Your task to perform on an android device: What's a good restaurant near me? Image 0: 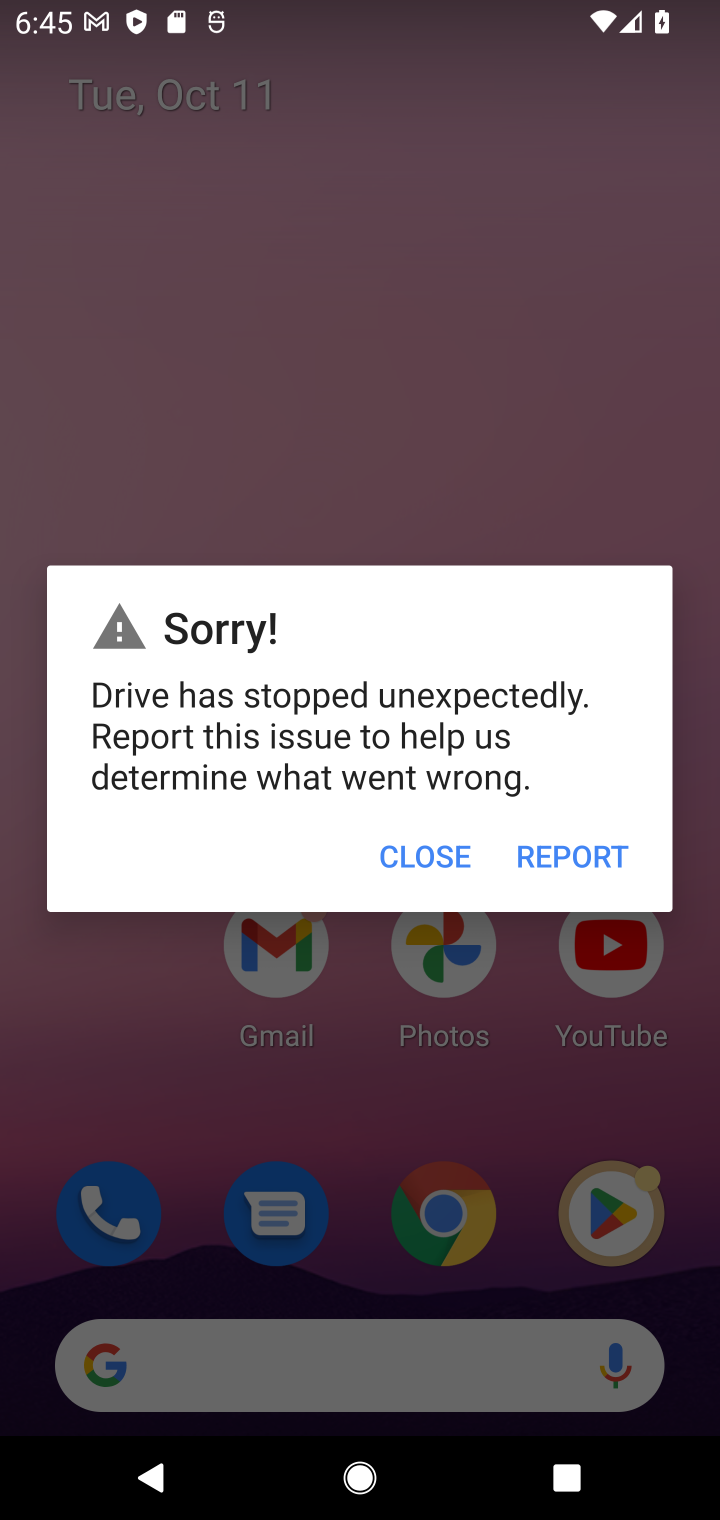
Step 0: click (450, 841)
Your task to perform on an android device: What's a good restaurant near me? Image 1: 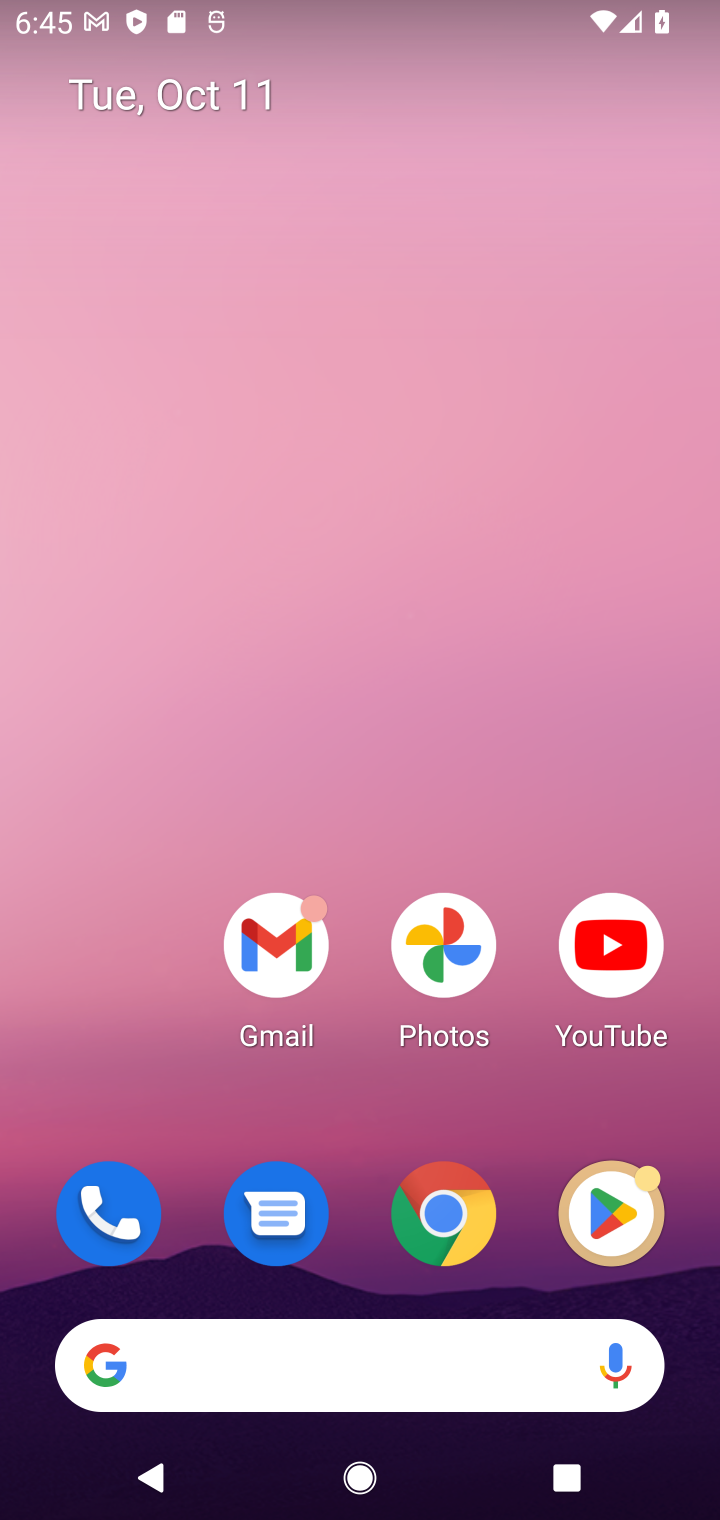
Step 1: drag from (234, 1198) to (336, 456)
Your task to perform on an android device: What's a good restaurant near me? Image 2: 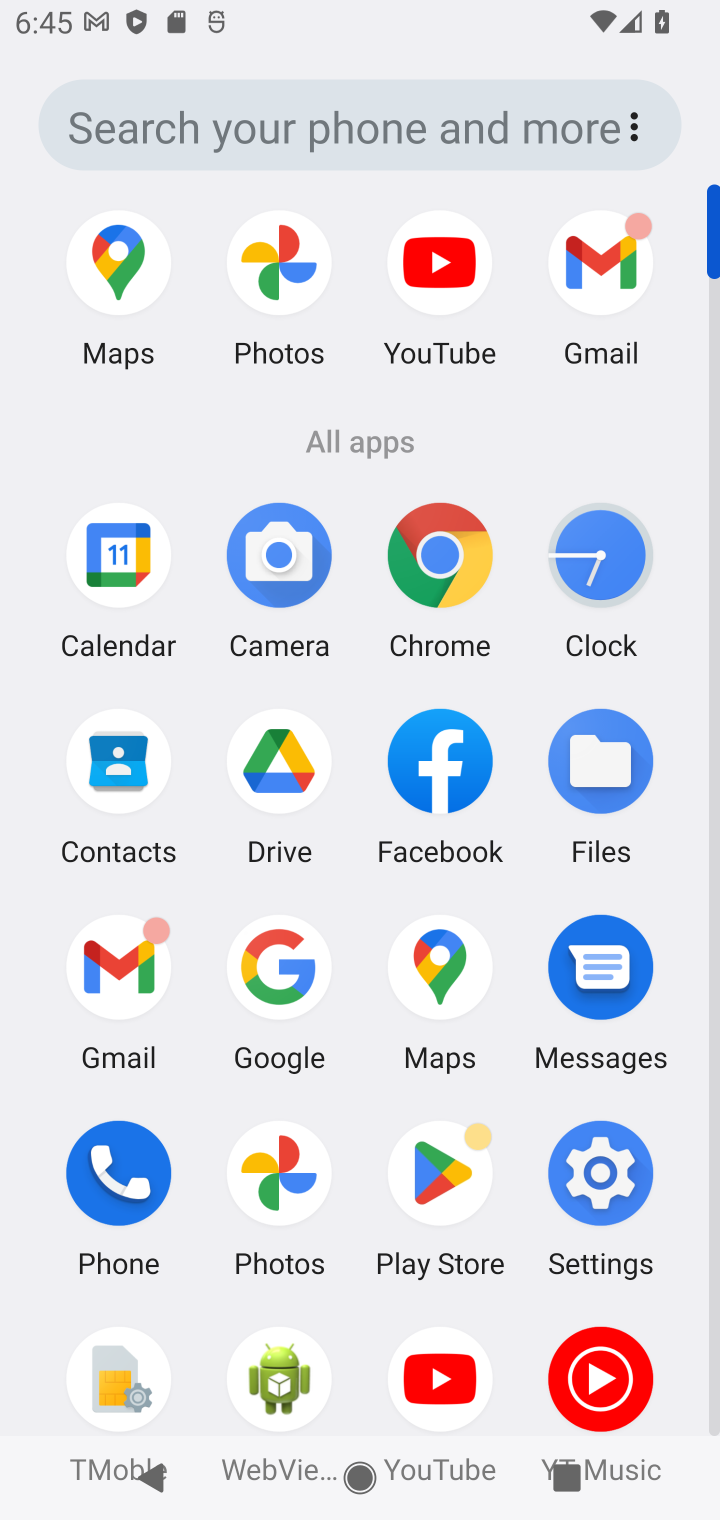
Step 2: click (279, 970)
Your task to perform on an android device: What's a good restaurant near me? Image 3: 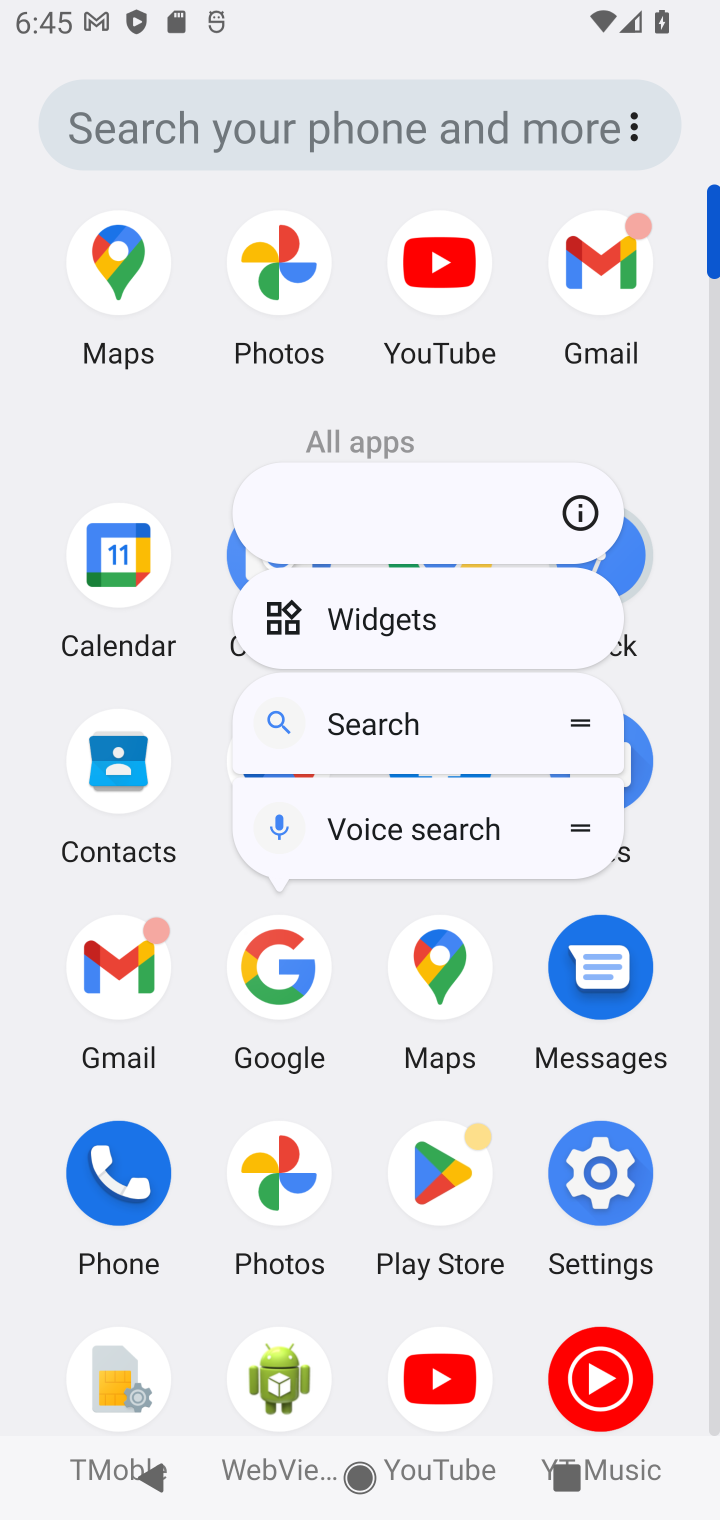
Step 3: click (270, 957)
Your task to perform on an android device: What's a good restaurant near me? Image 4: 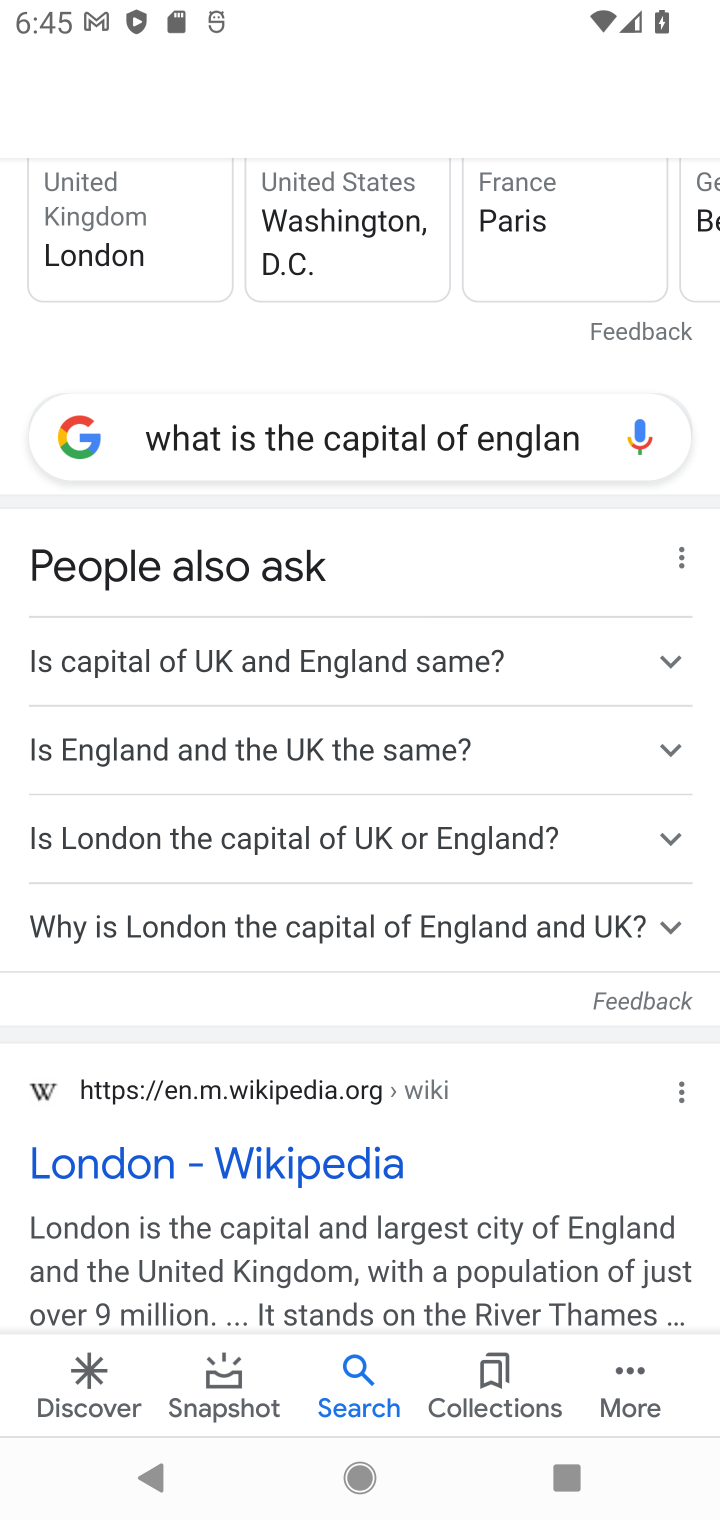
Step 4: click (409, 425)
Your task to perform on an android device: What's a good restaurant near me? Image 5: 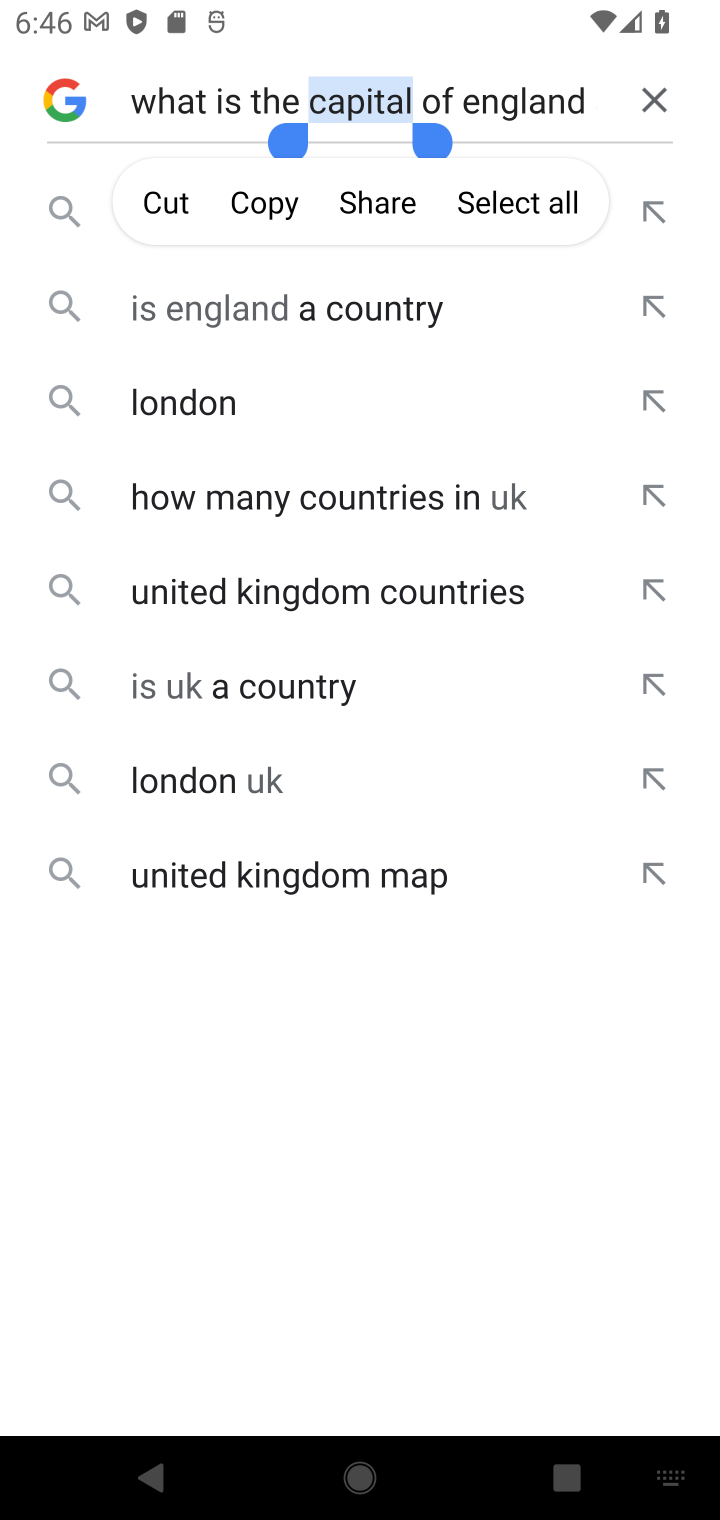
Step 5: click (656, 107)
Your task to perform on an android device: What's a good restaurant near me? Image 6: 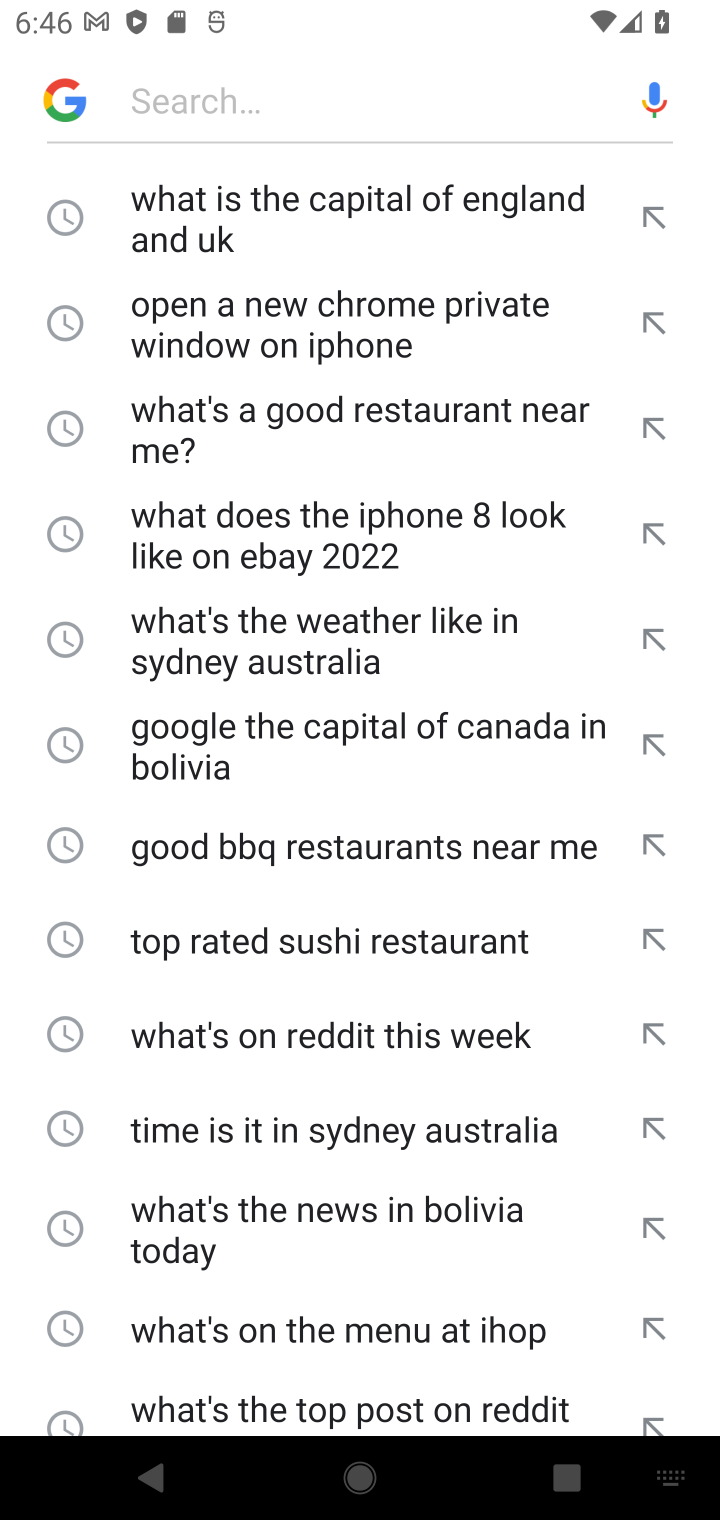
Step 6: click (373, 74)
Your task to perform on an android device: What's a good restaurant near me? Image 7: 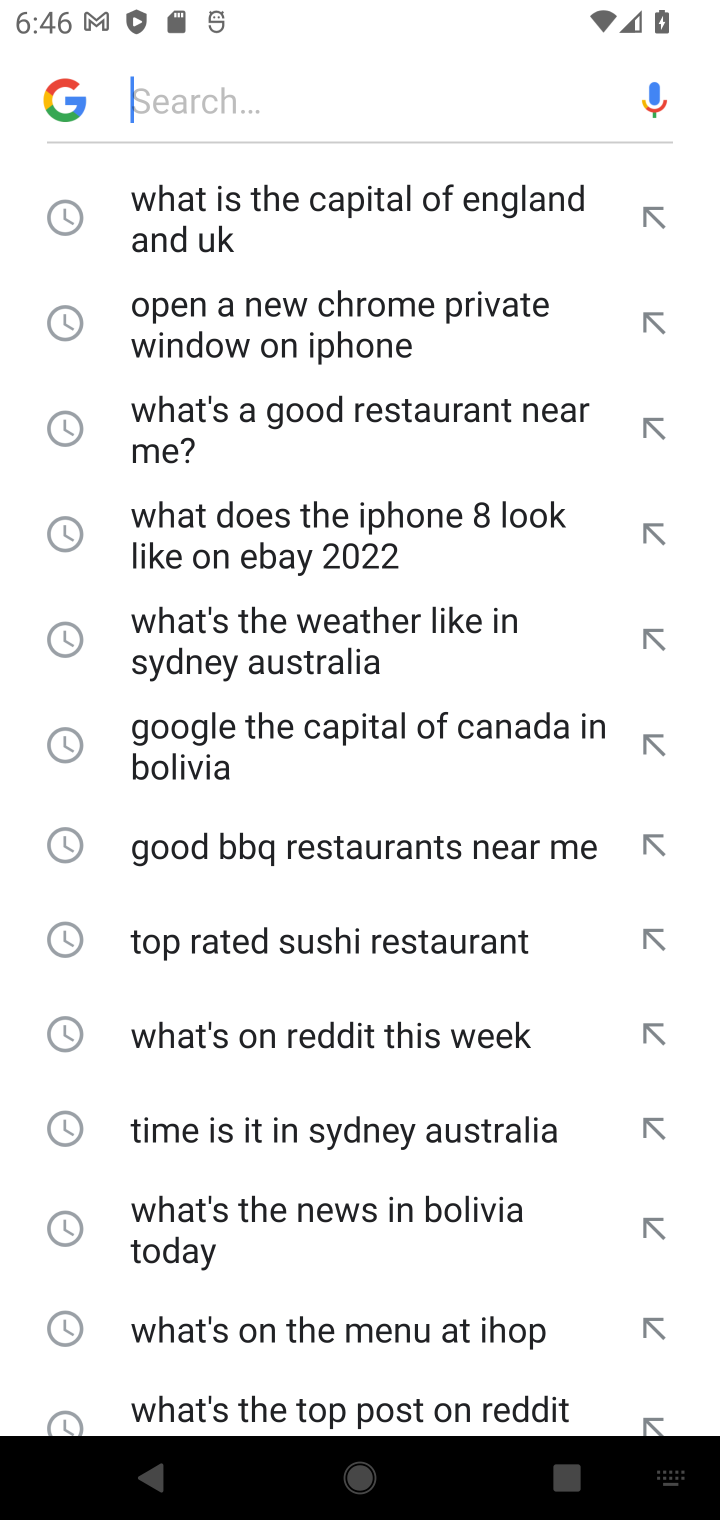
Step 7: type "What's a good restaurant near me? "
Your task to perform on an android device: What's a good restaurant near me? Image 8: 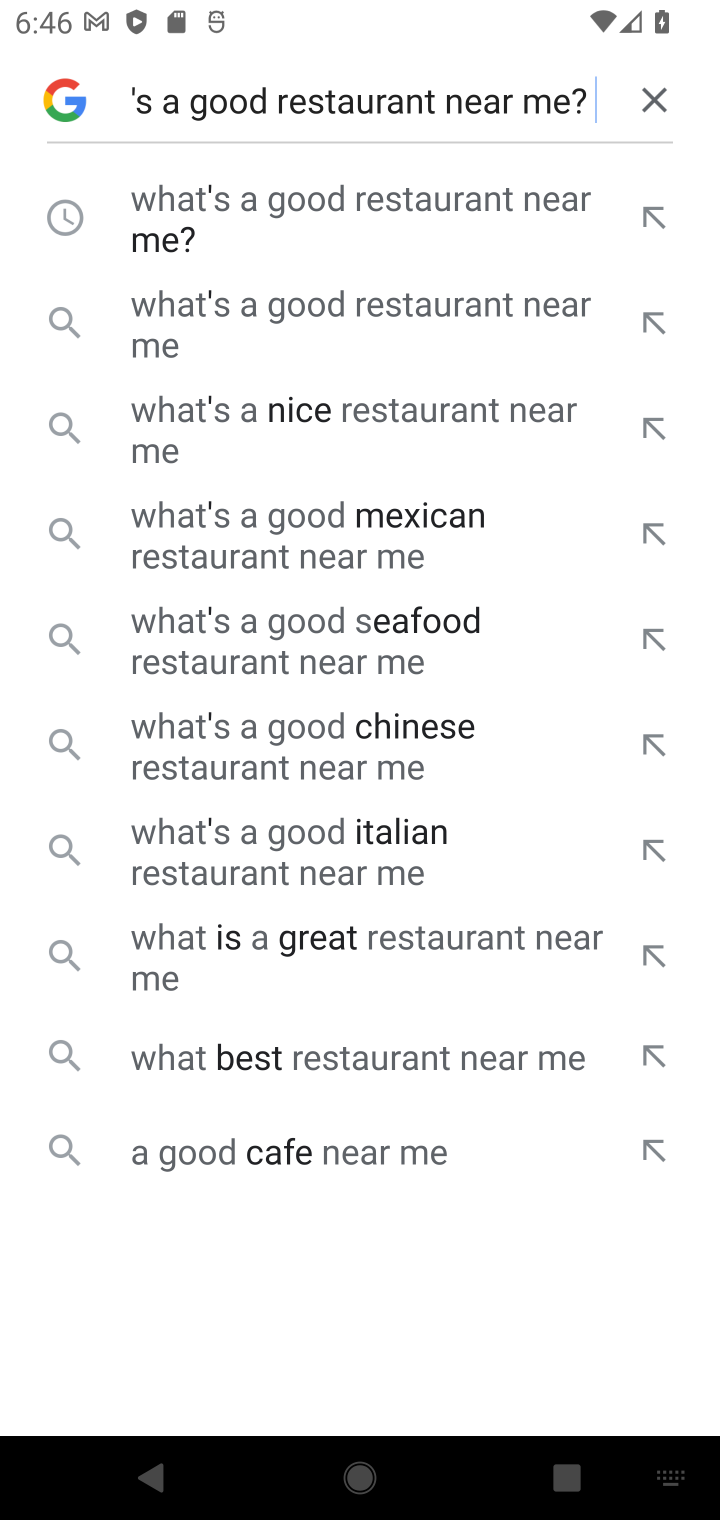
Step 8: click (345, 211)
Your task to perform on an android device: What's a good restaurant near me? Image 9: 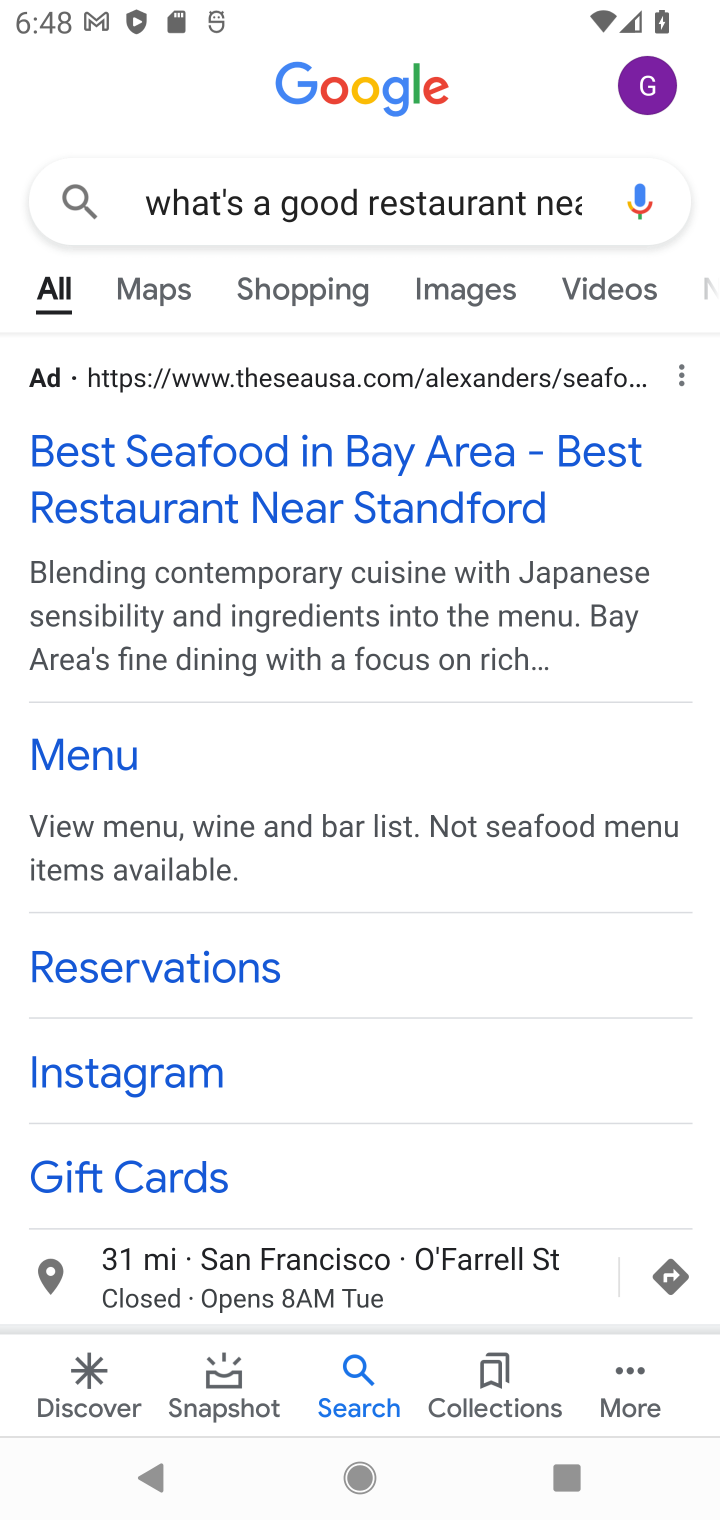
Step 9: click (368, 482)
Your task to perform on an android device: What's a good restaurant near me? Image 10: 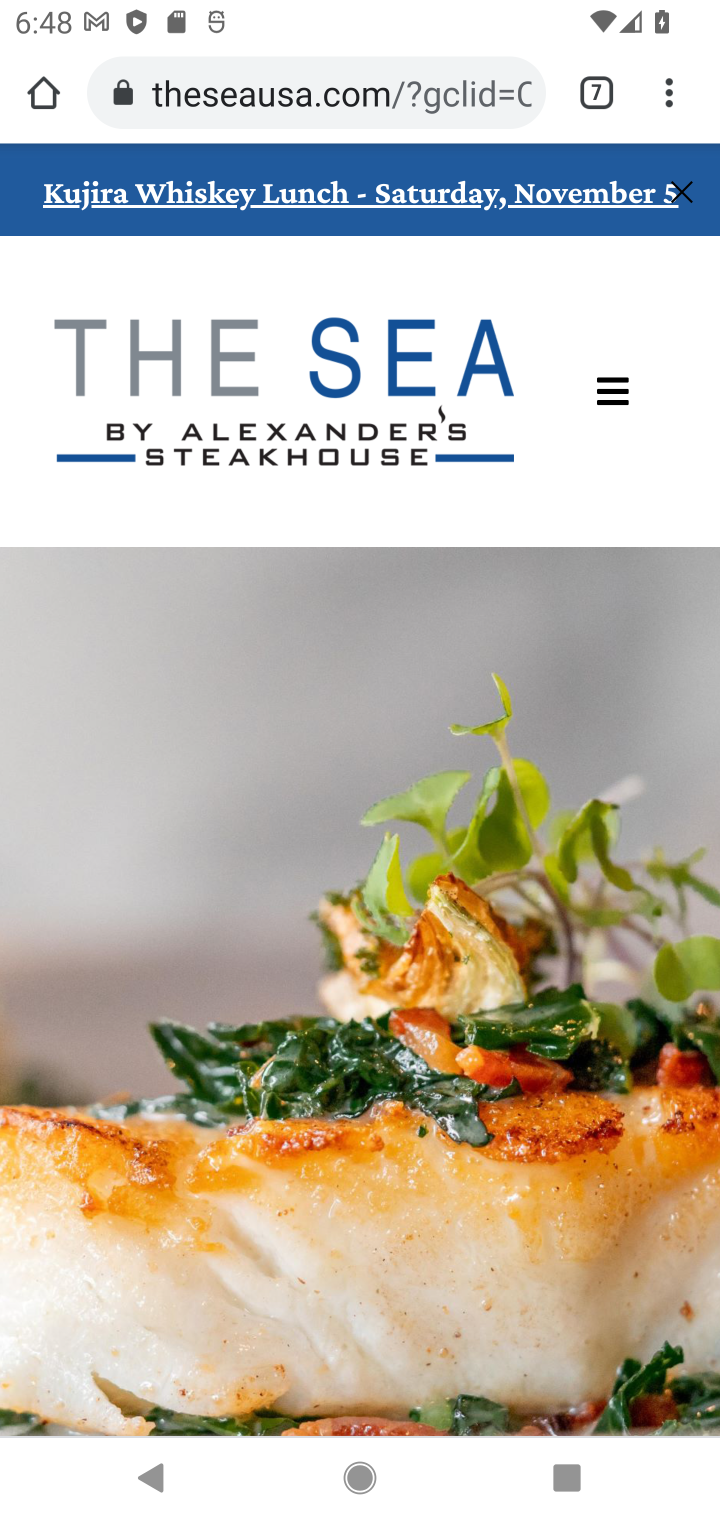
Step 10: task complete